Your task to perform on an android device: Open the Play Movies app and select the watchlist tab. Image 0: 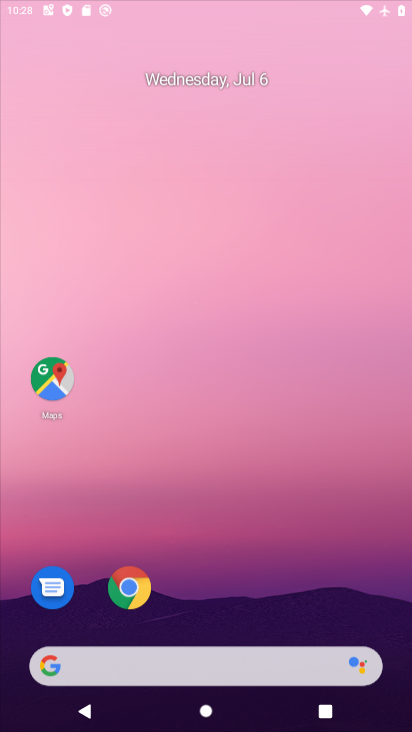
Step 0: drag from (202, 608) to (211, 259)
Your task to perform on an android device: Open the Play Movies app and select the watchlist tab. Image 1: 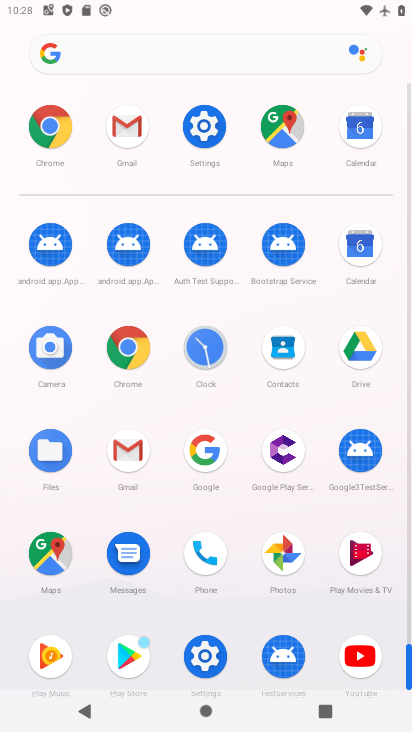
Step 1: click (355, 541)
Your task to perform on an android device: Open the Play Movies app and select the watchlist tab. Image 2: 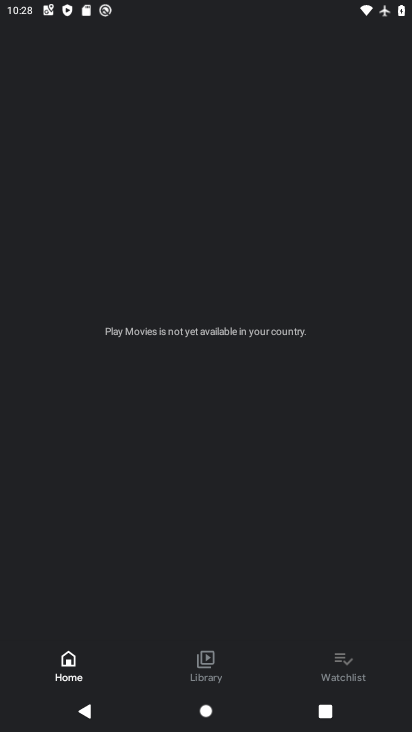
Step 2: click (348, 672)
Your task to perform on an android device: Open the Play Movies app and select the watchlist tab. Image 3: 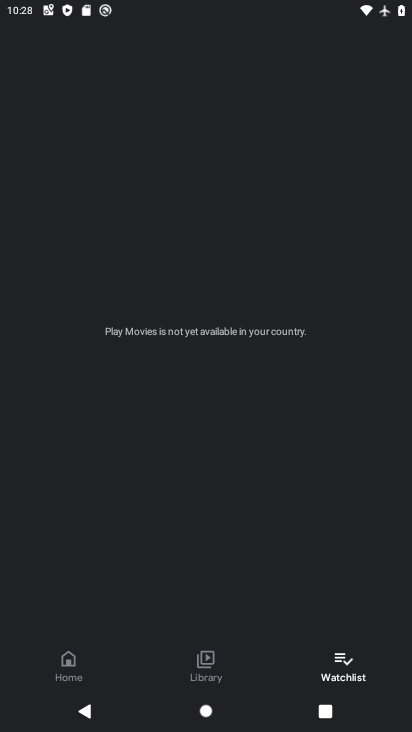
Step 3: task complete